Your task to perform on an android device: see sites visited before in the chrome app Image 0: 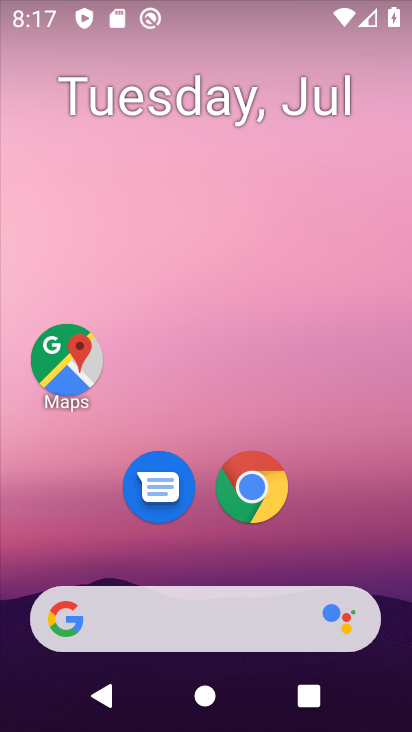
Step 0: click (238, 478)
Your task to perform on an android device: see sites visited before in the chrome app Image 1: 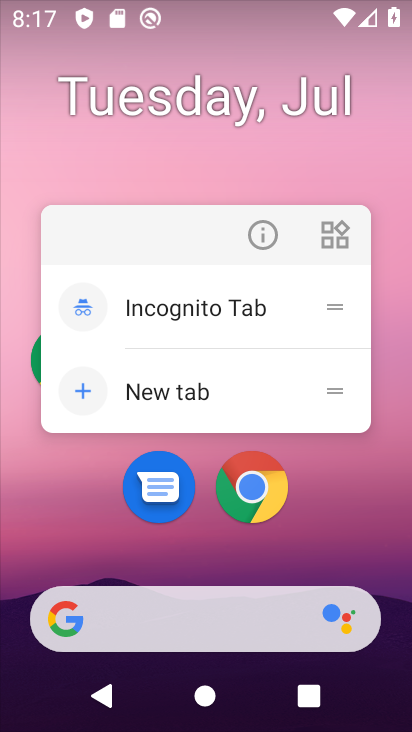
Step 1: click (261, 497)
Your task to perform on an android device: see sites visited before in the chrome app Image 2: 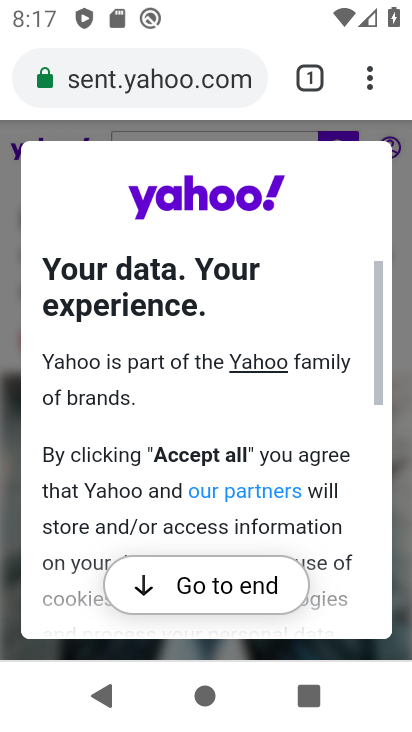
Step 2: task complete